Your task to perform on an android device: set an alarm Image 0: 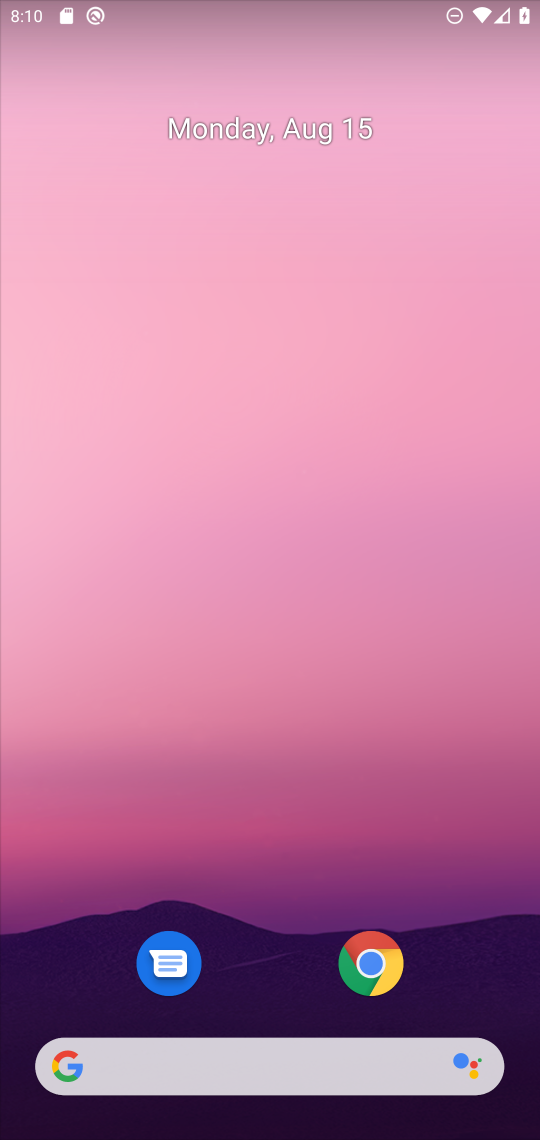
Step 0: drag from (220, 987) to (271, 193)
Your task to perform on an android device: set an alarm Image 1: 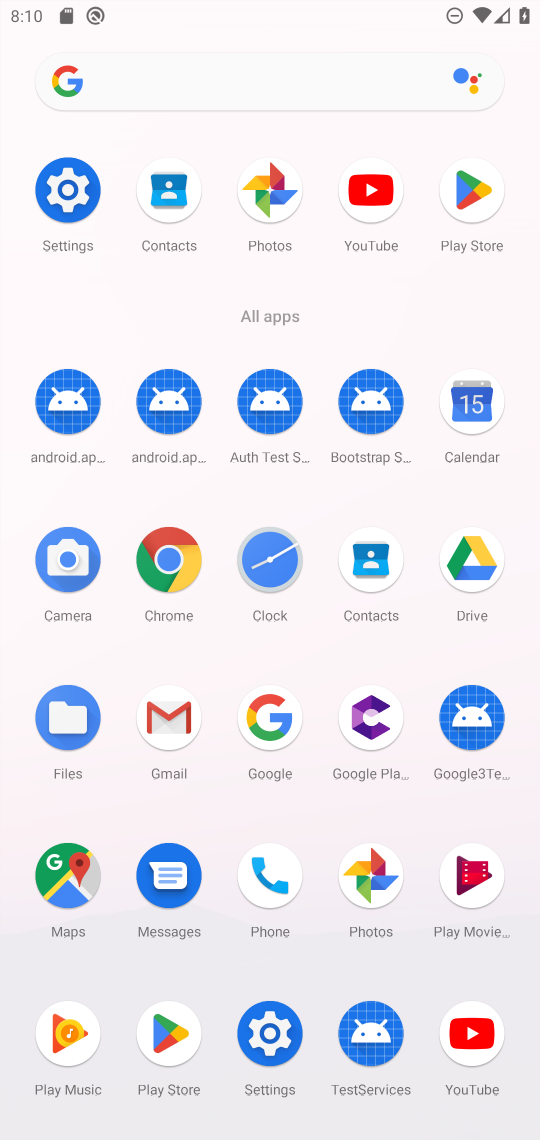
Step 1: click (287, 547)
Your task to perform on an android device: set an alarm Image 2: 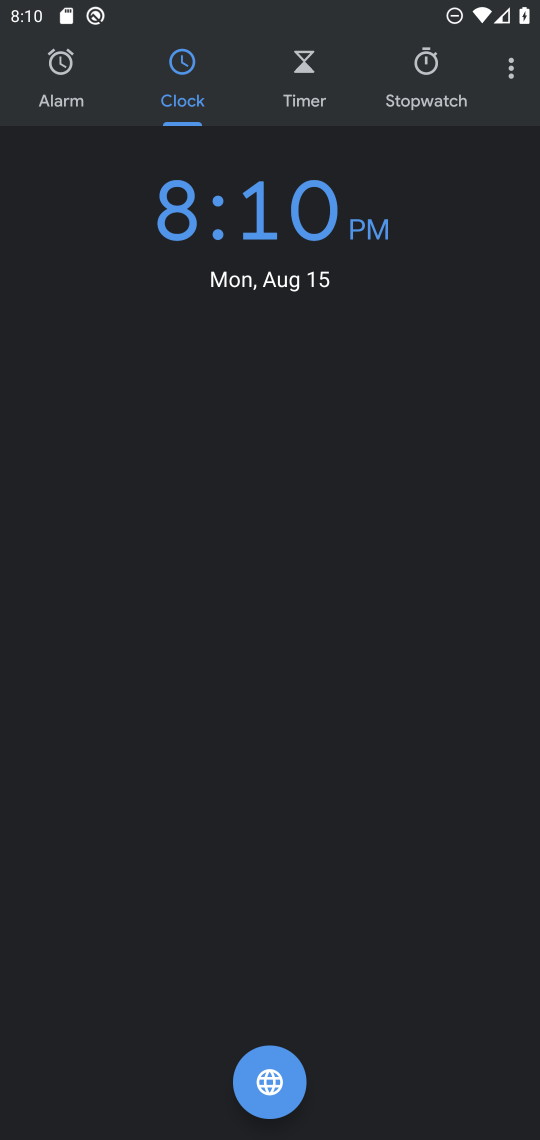
Step 2: click (44, 80)
Your task to perform on an android device: set an alarm Image 3: 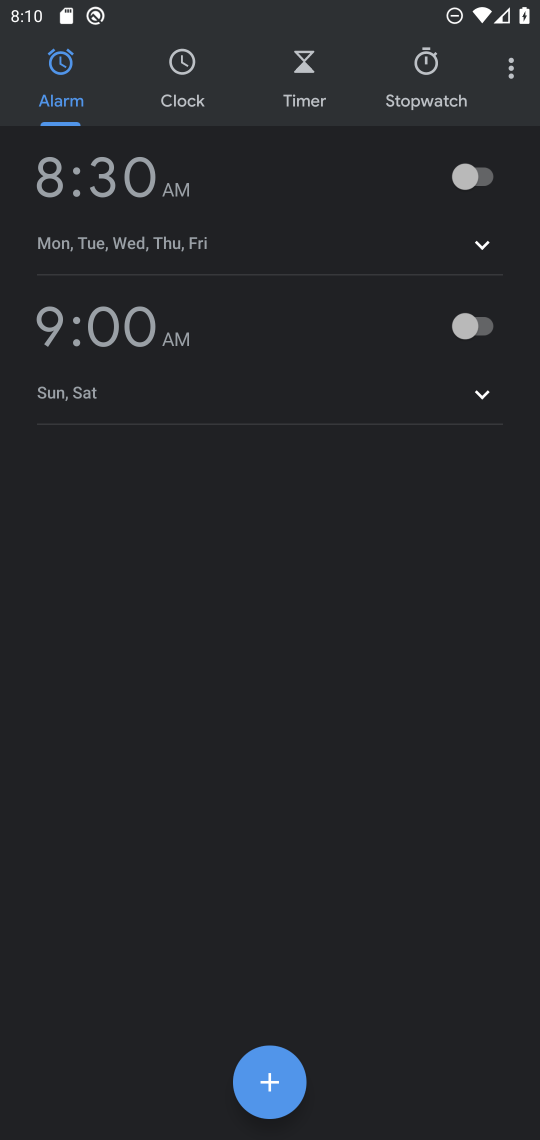
Step 3: click (483, 177)
Your task to perform on an android device: set an alarm Image 4: 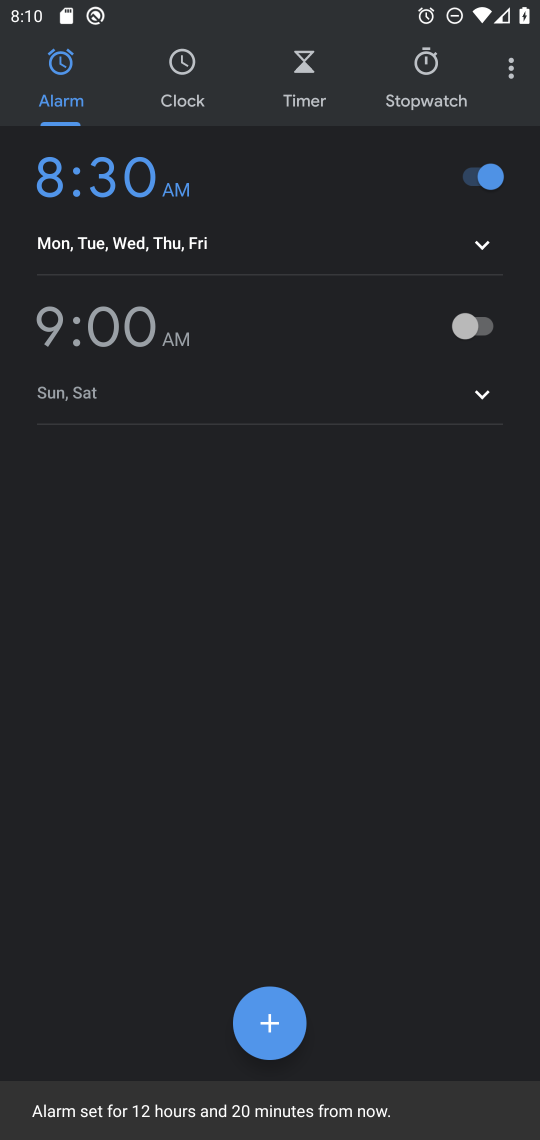
Step 4: task complete